Your task to perform on an android device: see creations saved in the google photos Image 0: 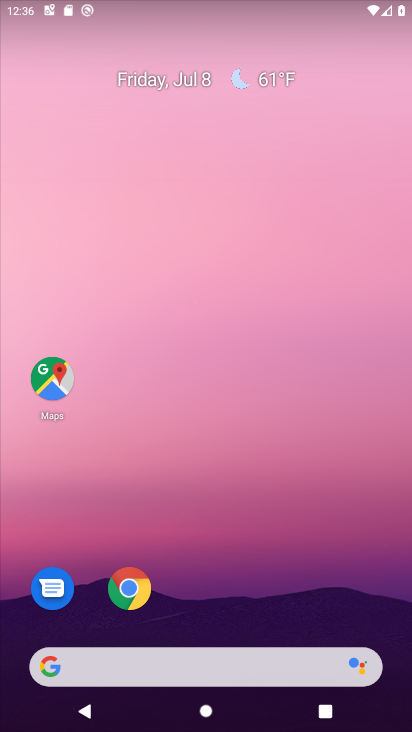
Step 0: press home button
Your task to perform on an android device: see creations saved in the google photos Image 1: 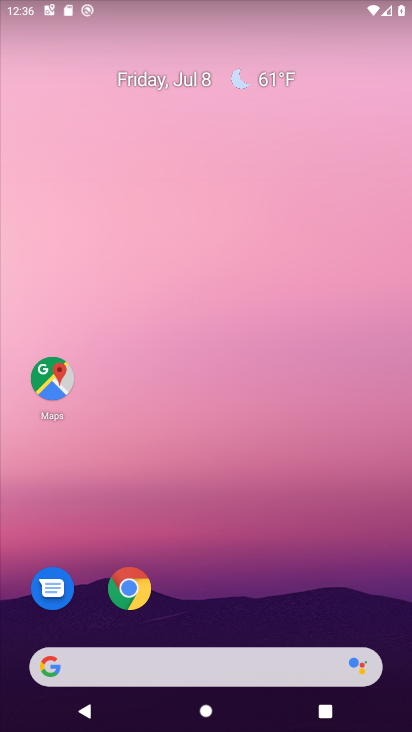
Step 1: press home button
Your task to perform on an android device: see creations saved in the google photos Image 2: 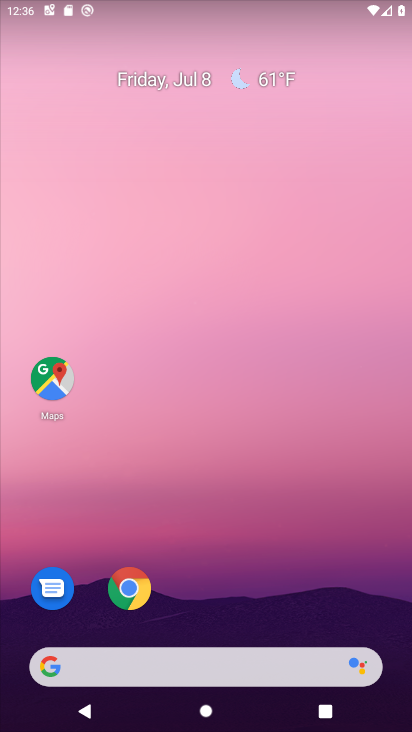
Step 2: drag from (229, 593) to (205, 8)
Your task to perform on an android device: see creations saved in the google photos Image 3: 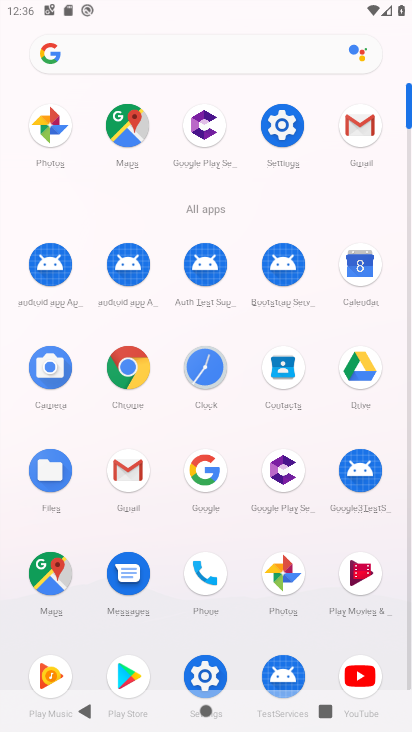
Step 3: click (280, 572)
Your task to perform on an android device: see creations saved in the google photos Image 4: 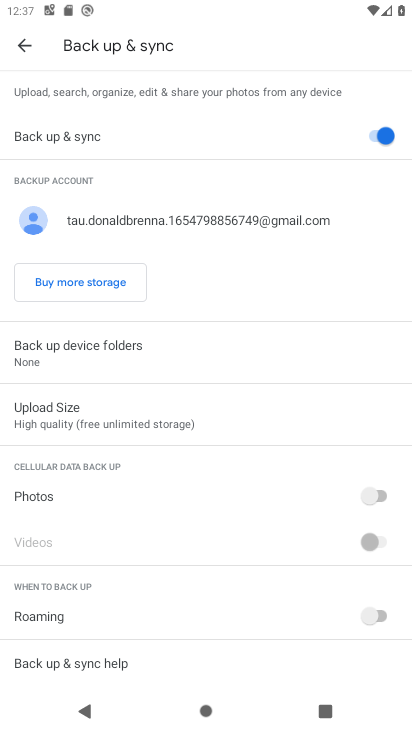
Step 4: click (24, 46)
Your task to perform on an android device: see creations saved in the google photos Image 5: 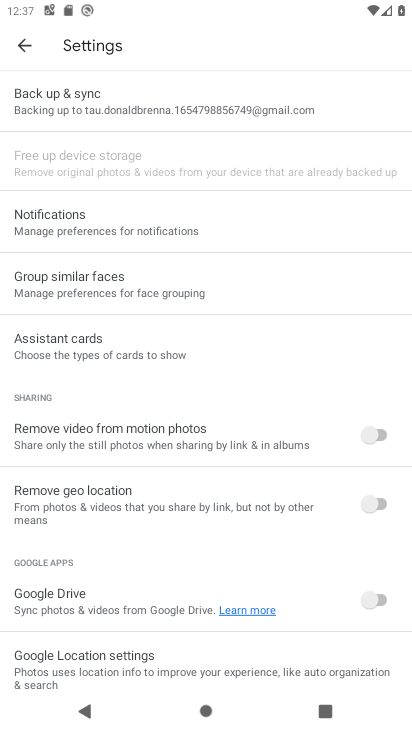
Step 5: click (24, 46)
Your task to perform on an android device: see creations saved in the google photos Image 6: 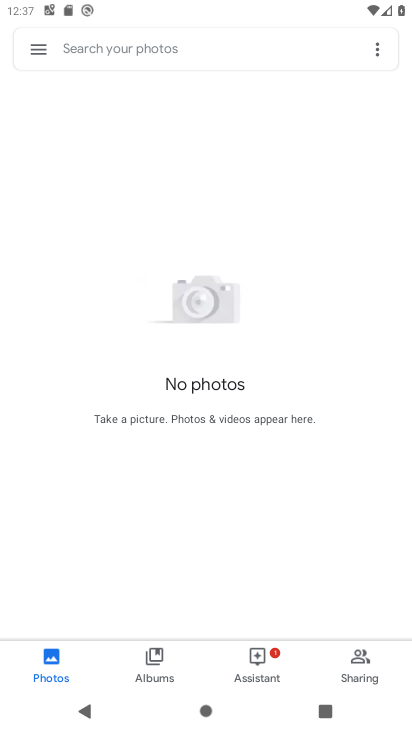
Step 6: task complete